Your task to perform on an android device: Open Amazon Image 0: 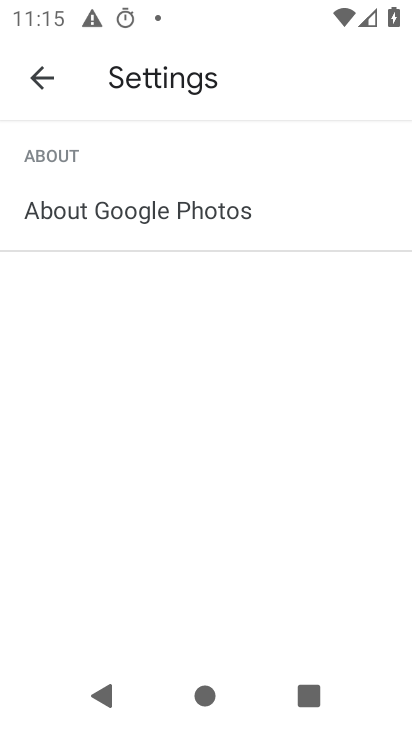
Step 0: press back button
Your task to perform on an android device: Open Amazon Image 1: 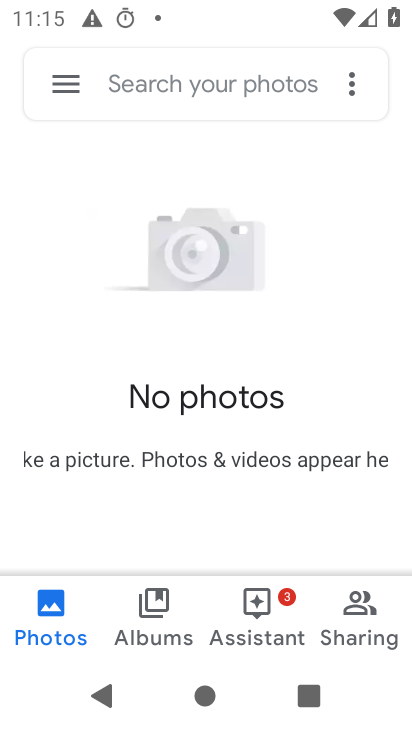
Step 1: press back button
Your task to perform on an android device: Open Amazon Image 2: 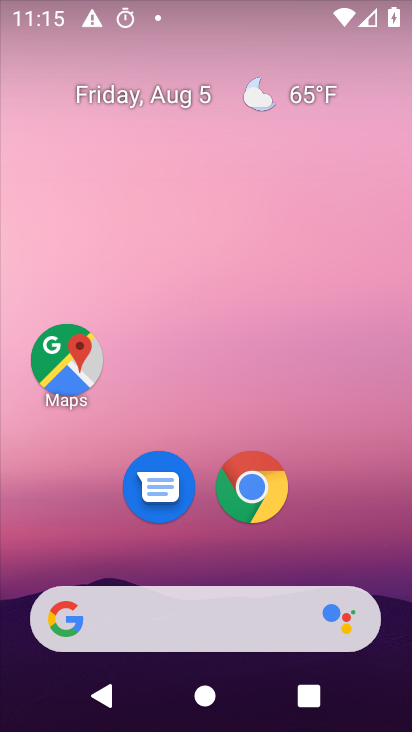
Step 2: click (232, 464)
Your task to perform on an android device: Open Amazon Image 3: 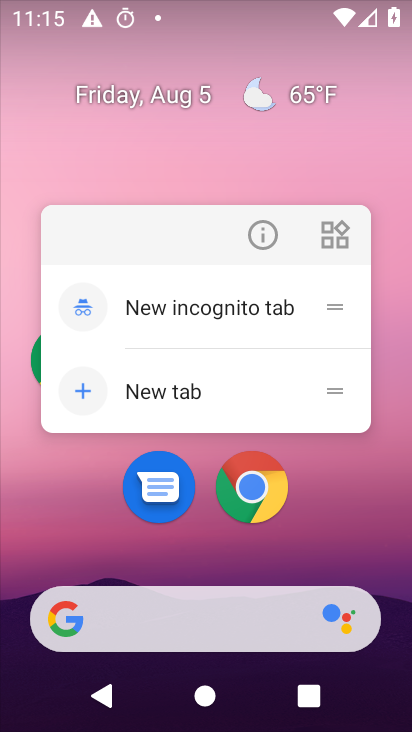
Step 3: click (249, 477)
Your task to perform on an android device: Open Amazon Image 4: 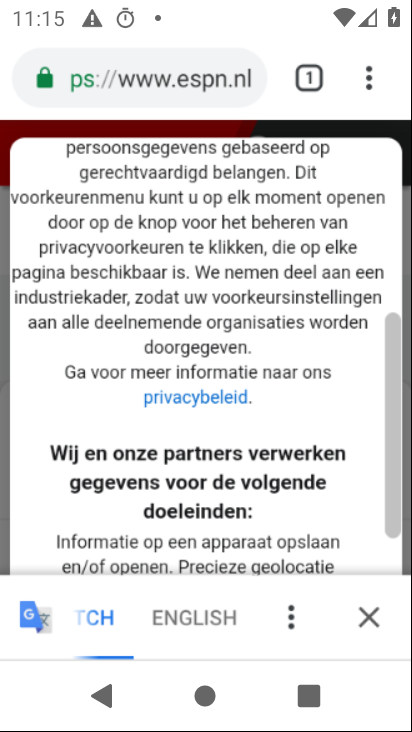
Step 4: click (315, 78)
Your task to perform on an android device: Open Amazon Image 5: 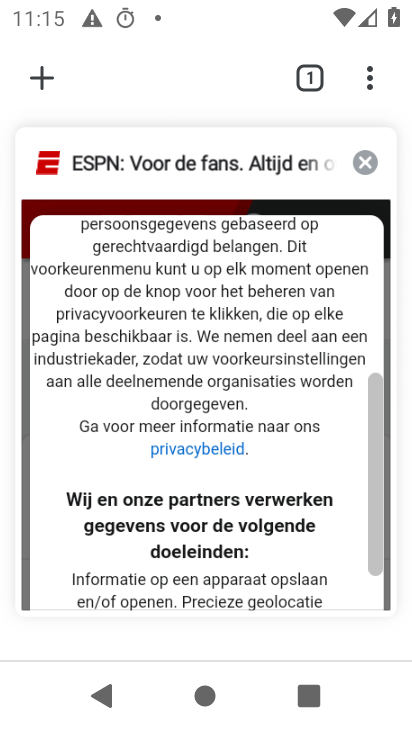
Step 5: click (50, 72)
Your task to perform on an android device: Open Amazon Image 6: 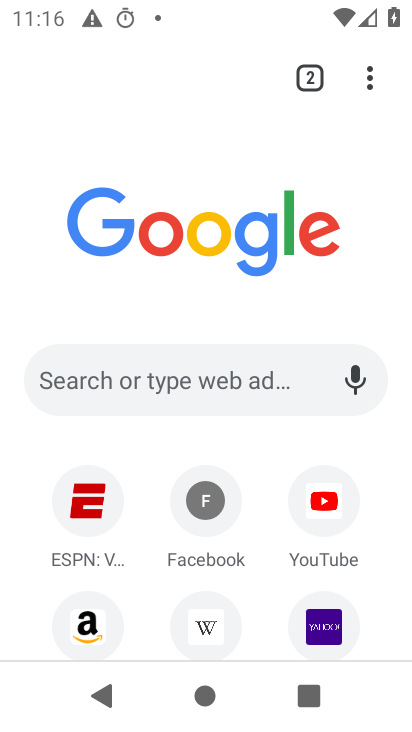
Step 6: click (93, 624)
Your task to perform on an android device: Open Amazon Image 7: 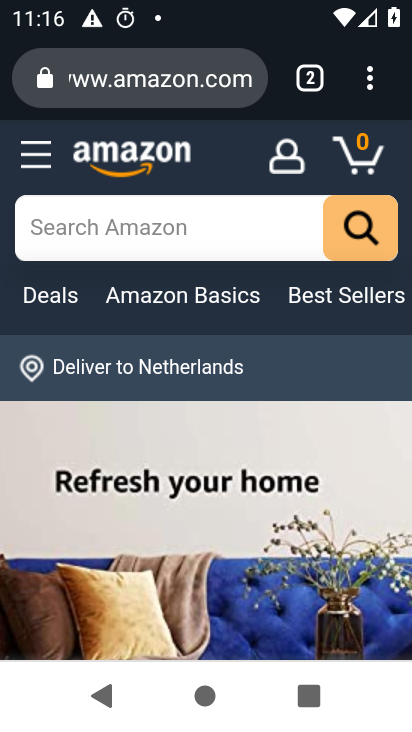
Step 7: task complete